Your task to perform on an android device: Go to display settings Image 0: 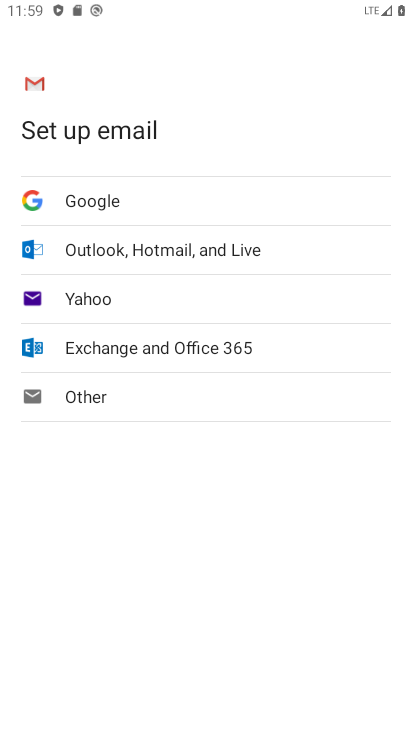
Step 0: press home button
Your task to perform on an android device: Go to display settings Image 1: 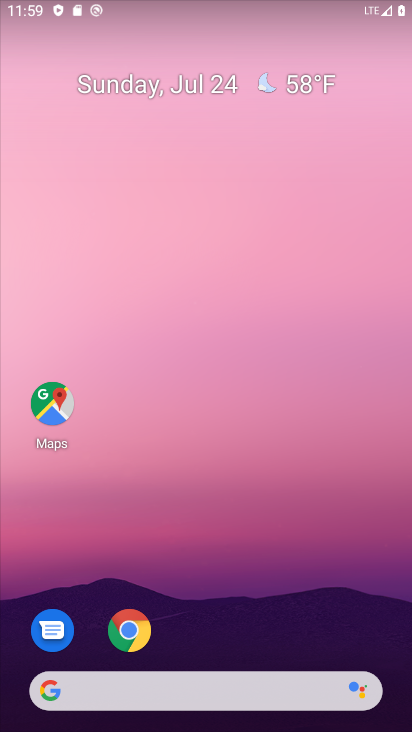
Step 1: drag from (212, 649) to (180, 127)
Your task to perform on an android device: Go to display settings Image 2: 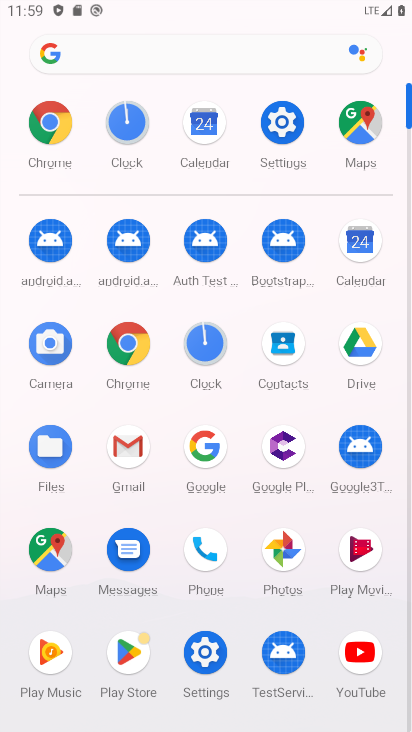
Step 2: click (280, 133)
Your task to perform on an android device: Go to display settings Image 3: 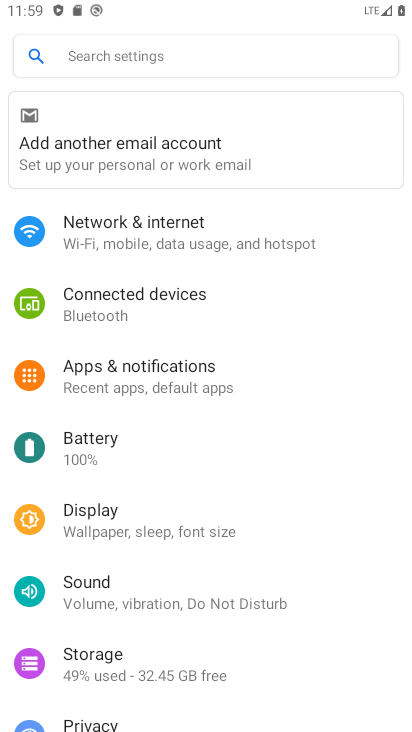
Step 3: click (177, 515)
Your task to perform on an android device: Go to display settings Image 4: 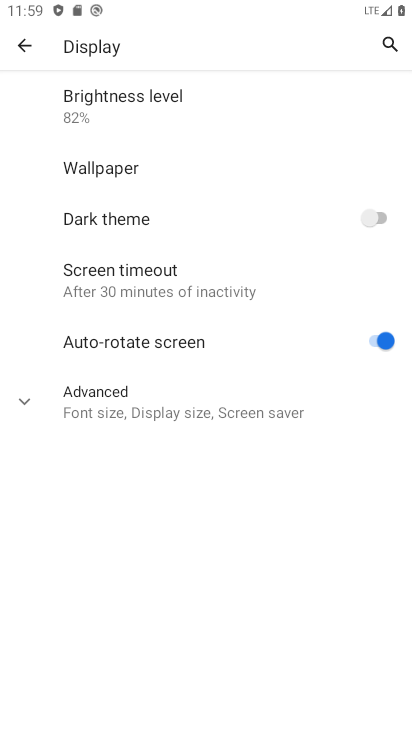
Step 4: task complete